Your task to perform on an android device: Is it going to rain tomorrow? Image 0: 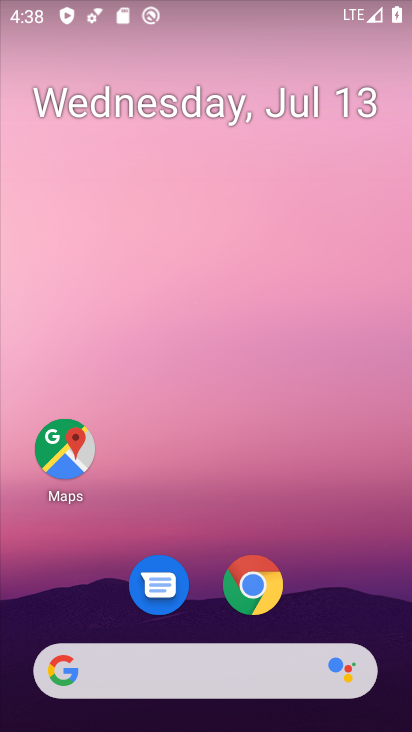
Step 0: click (245, 667)
Your task to perform on an android device: Is it going to rain tomorrow? Image 1: 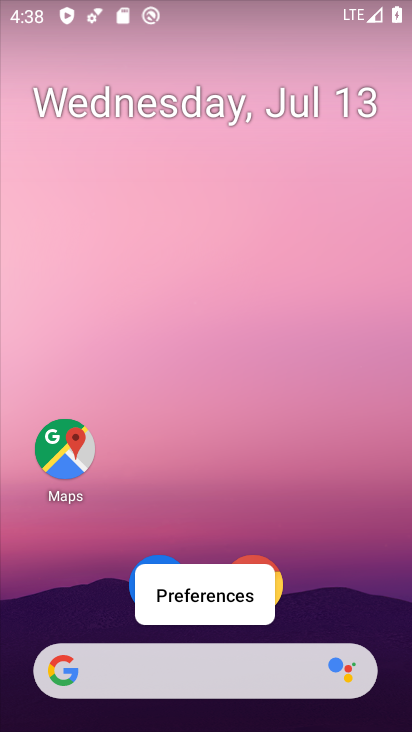
Step 1: click (245, 667)
Your task to perform on an android device: Is it going to rain tomorrow? Image 2: 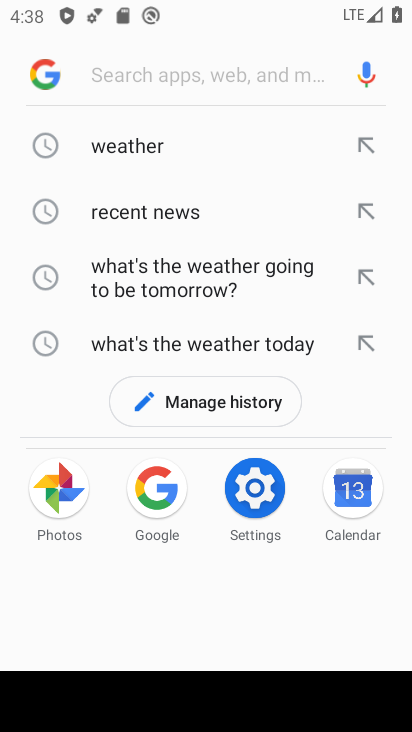
Step 2: click (142, 145)
Your task to perform on an android device: Is it going to rain tomorrow? Image 3: 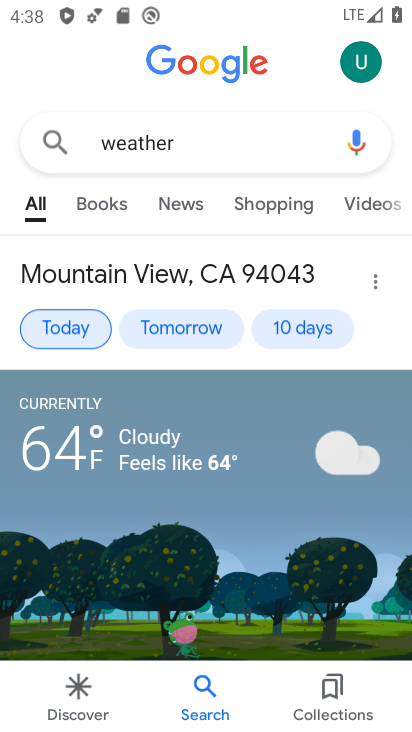
Step 3: click (91, 330)
Your task to perform on an android device: Is it going to rain tomorrow? Image 4: 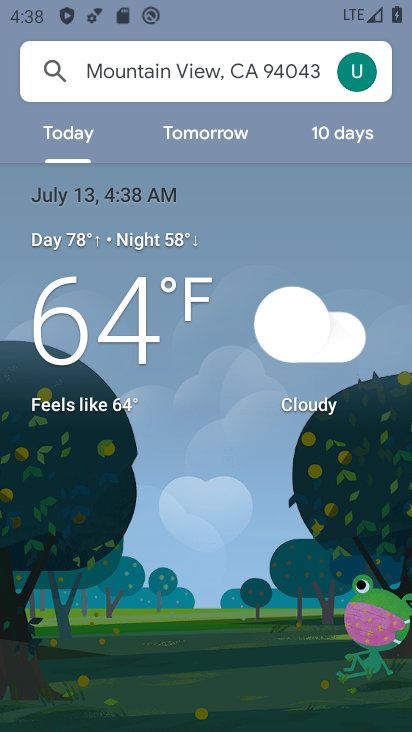
Step 4: click (220, 132)
Your task to perform on an android device: Is it going to rain tomorrow? Image 5: 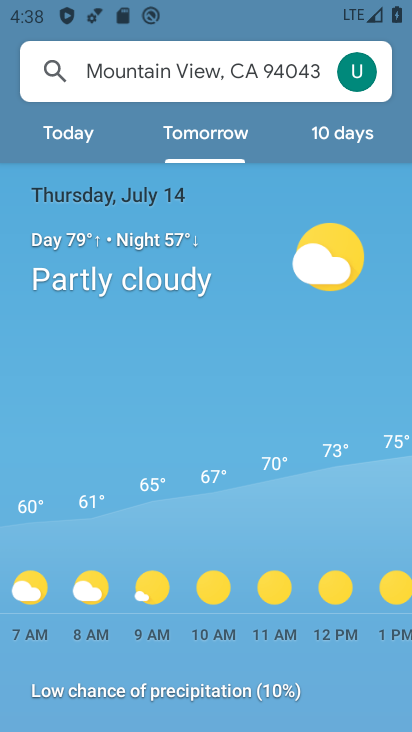
Step 5: task complete